Your task to perform on an android device: Show me popular videos on Youtube Image 0: 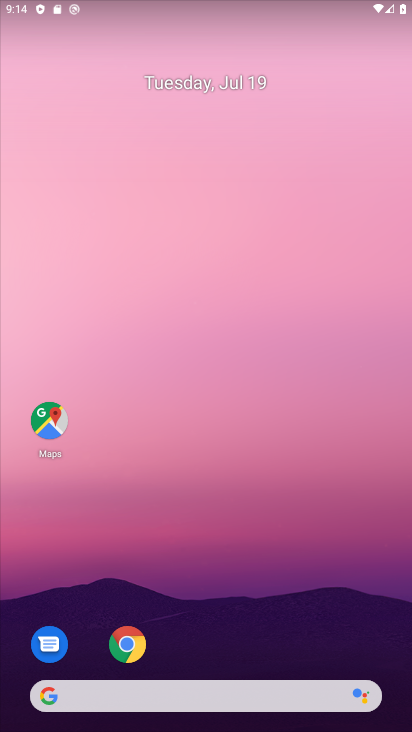
Step 0: drag from (289, 559) to (314, 274)
Your task to perform on an android device: Show me popular videos on Youtube Image 1: 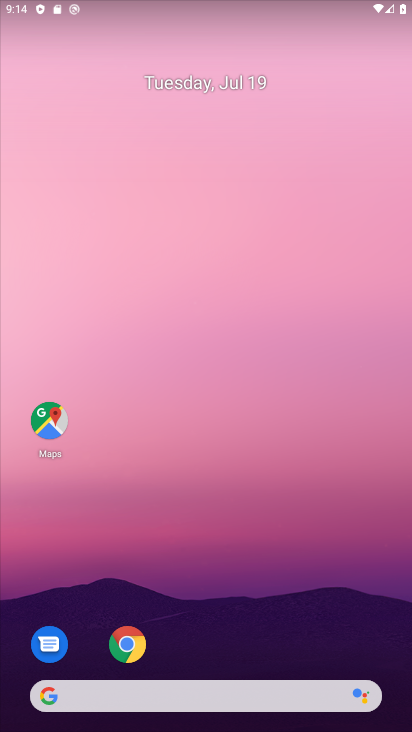
Step 1: drag from (247, 568) to (252, 280)
Your task to perform on an android device: Show me popular videos on Youtube Image 2: 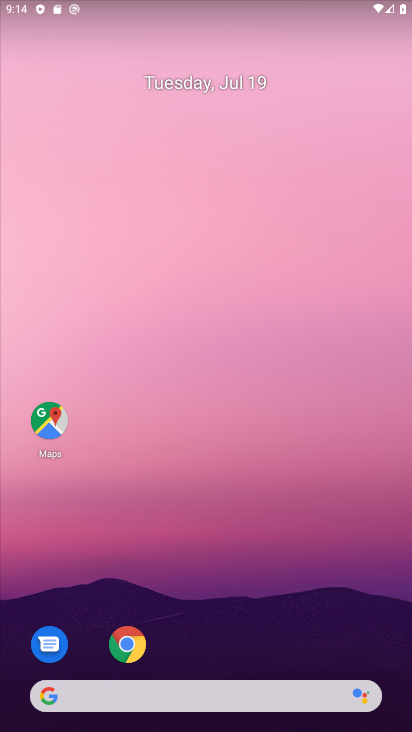
Step 2: drag from (257, 581) to (256, 94)
Your task to perform on an android device: Show me popular videos on Youtube Image 3: 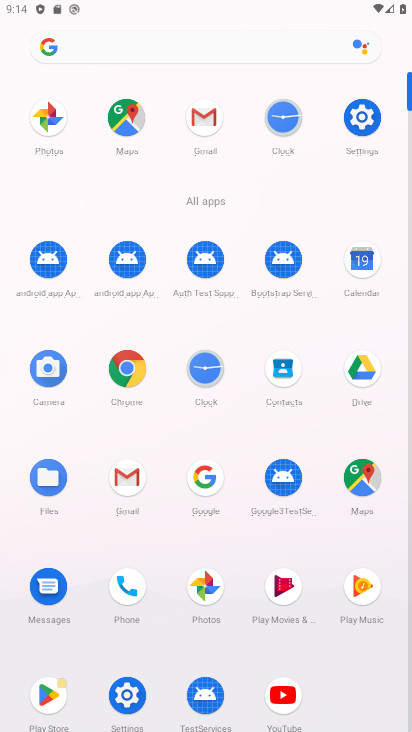
Step 3: click (288, 690)
Your task to perform on an android device: Show me popular videos on Youtube Image 4: 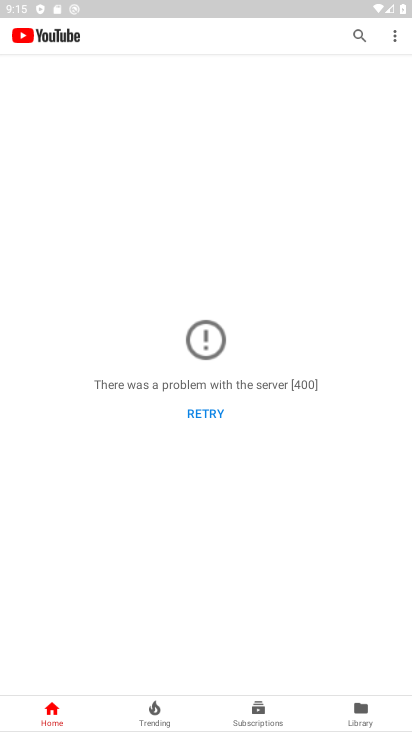
Step 4: task complete